Your task to perform on an android device: clear history in the chrome app Image 0: 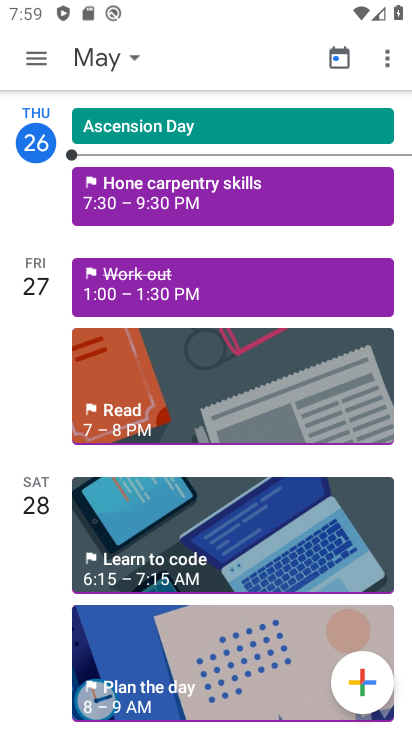
Step 0: press home button
Your task to perform on an android device: clear history in the chrome app Image 1: 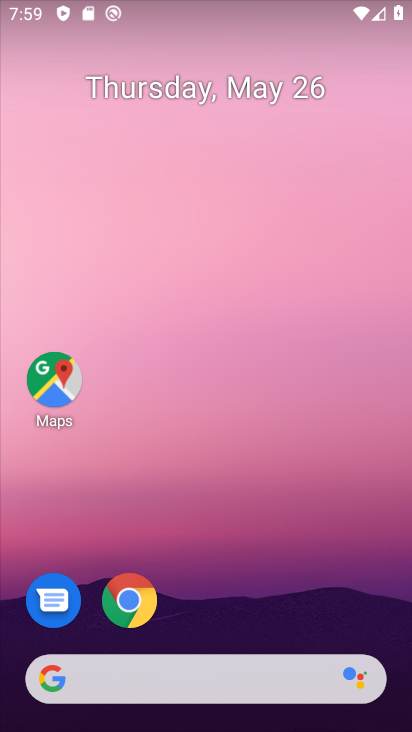
Step 1: click (127, 593)
Your task to perform on an android device: clear history in the chrome app Image 2: 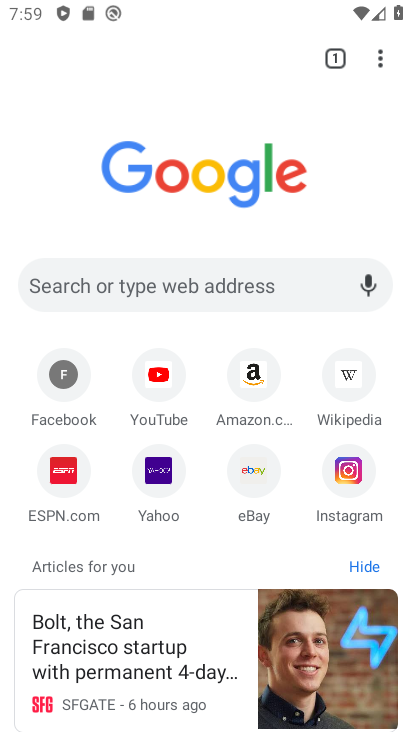
Step 2: click (389, 51)
Your task to perform on an android device: clear history in the chrome app Image 3: 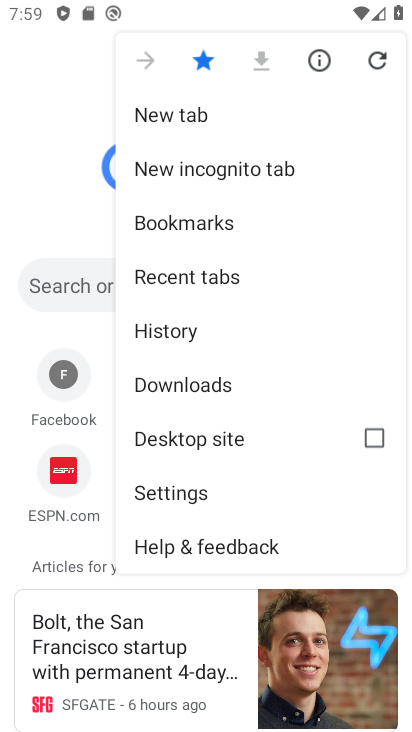
Step 3: click (184, 332)
Your task to perform on an android device: clear history in the chrome app Image 4: 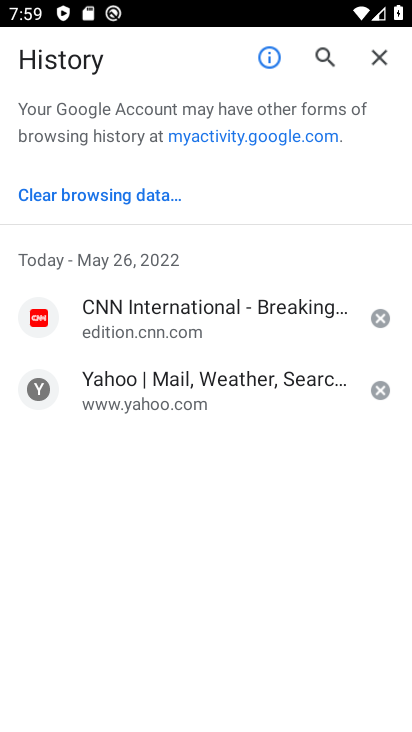
Step 4: click (128, 183)
Your task to perform on an android device: clear history in the chrome app Image 5: 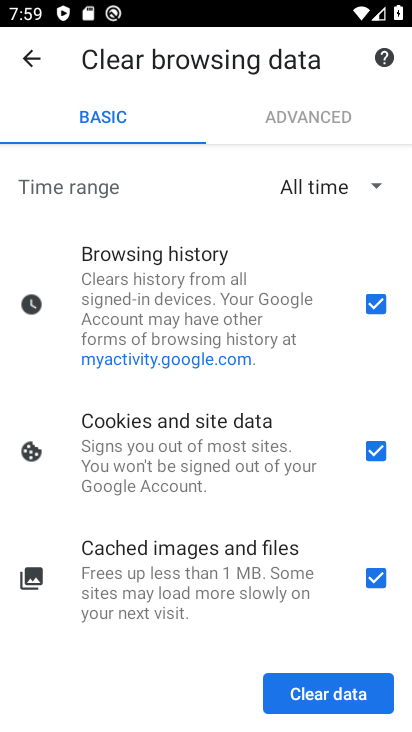
Step 5: click (289, 699)
Your task to perform on an android device: clear history in the chrome app Image 6: 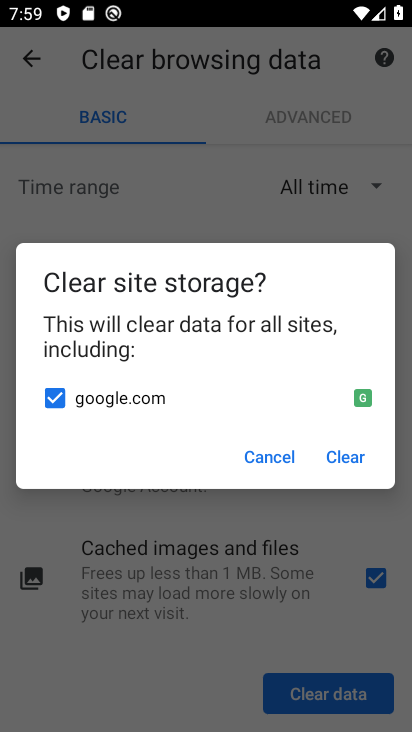
Step 6: click (340, 451)
Your task to perform on an android device: clear history in the chrome app Image 7: 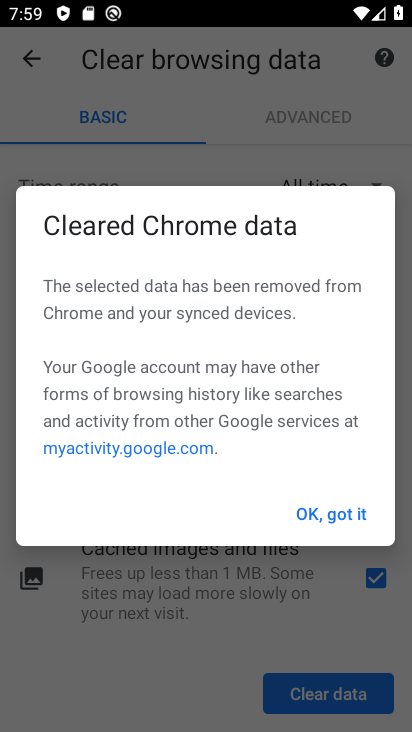
Step 7: click (324, 521)
Your task to perform on an android device: clear history in the chrome app Image 8: 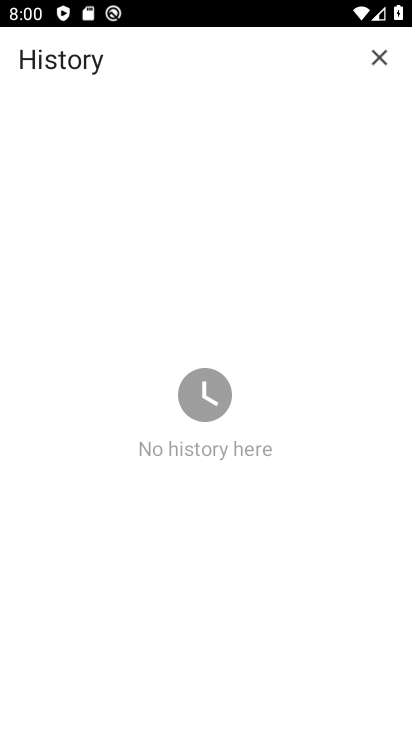
Step 8: task complete